Your task to perform on an android device: Open Google Image 0: 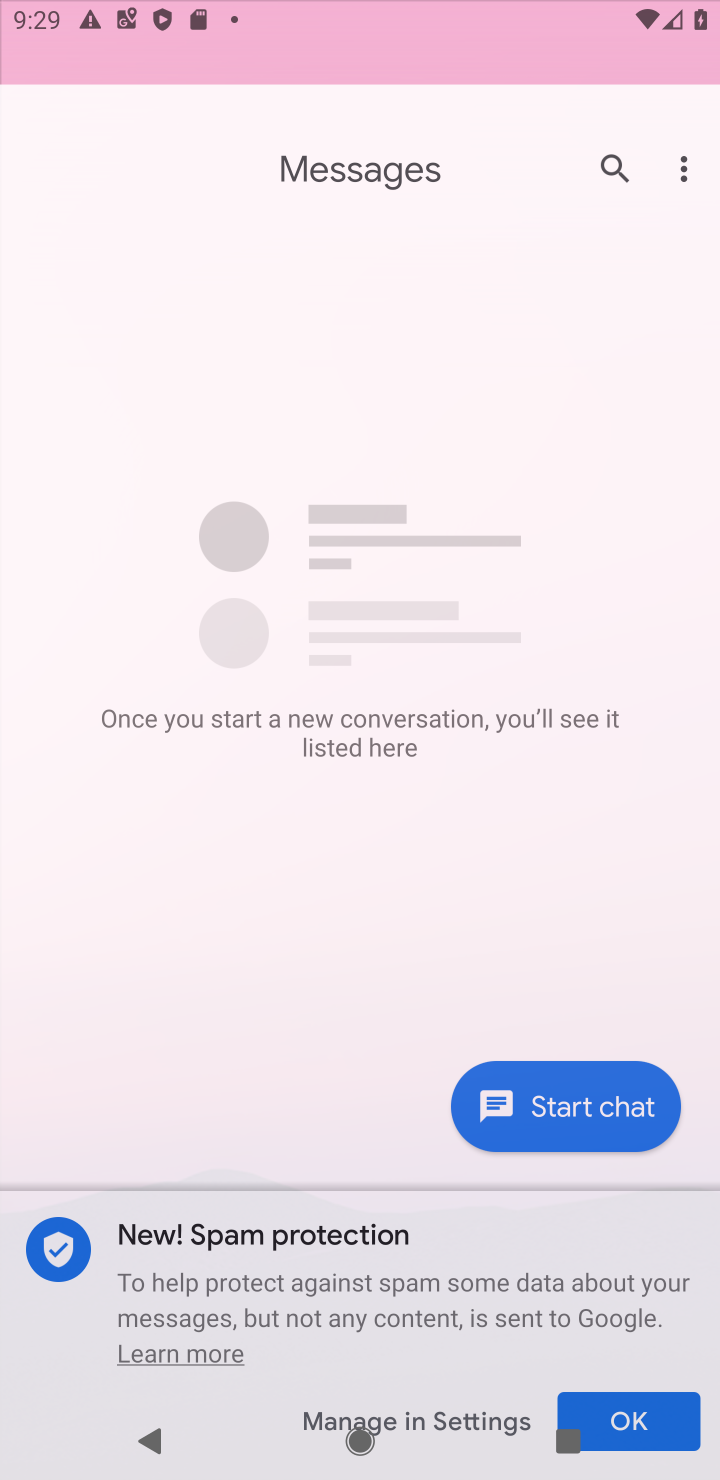
Step 0: press home button
Your task to perform on an android device: Open Google Image 1: 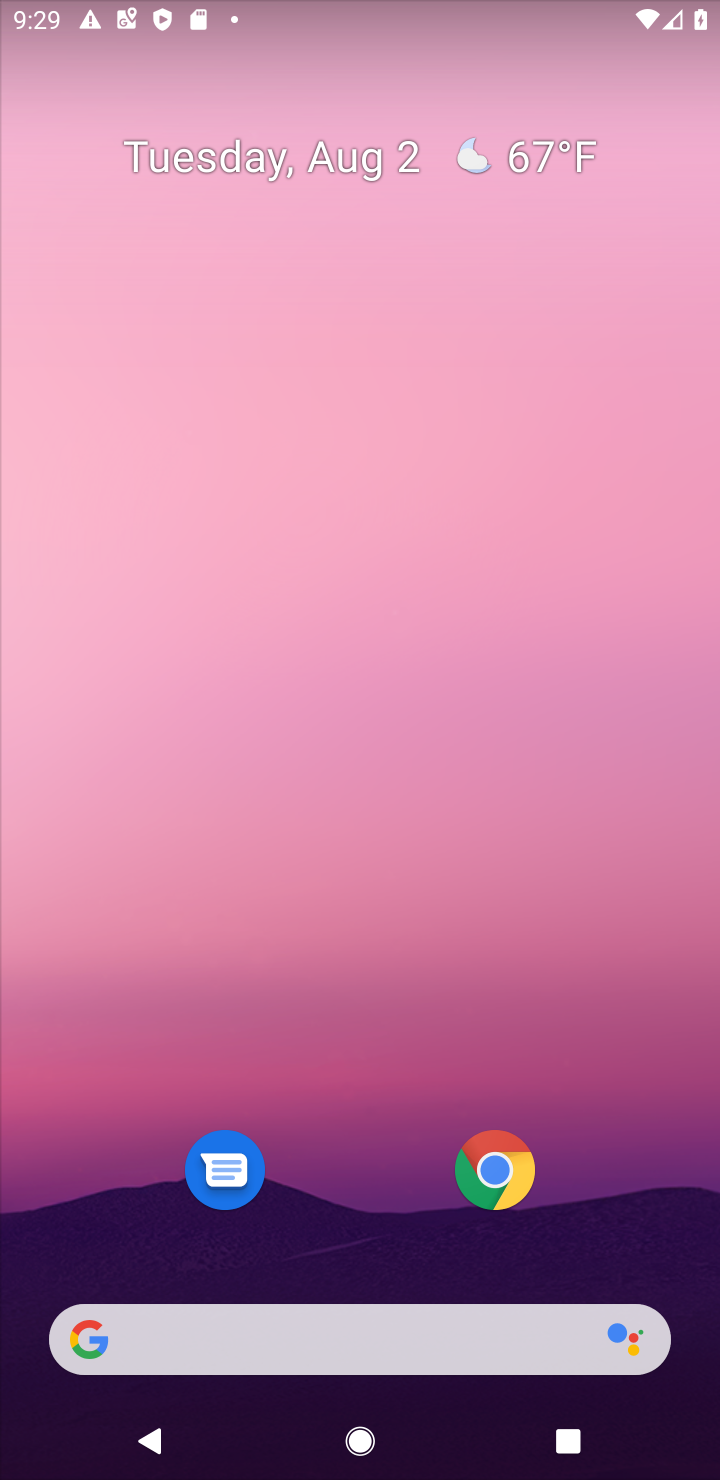
Step 1: click (303, 1335)
Your task to perform on an android device: Open Google Image 2: 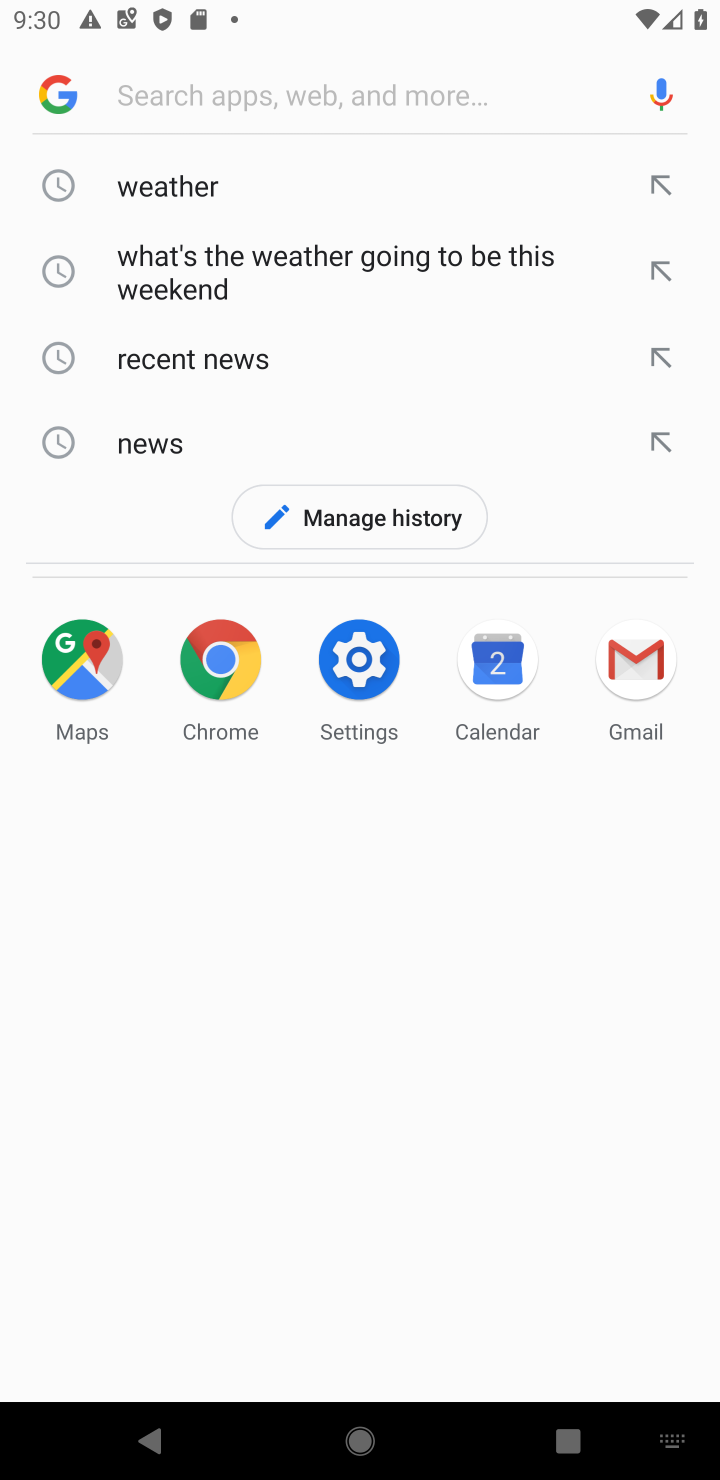
Step 2: task complete